Your task to perform on an android device: turn smart compose on in the gmail app Image 0: 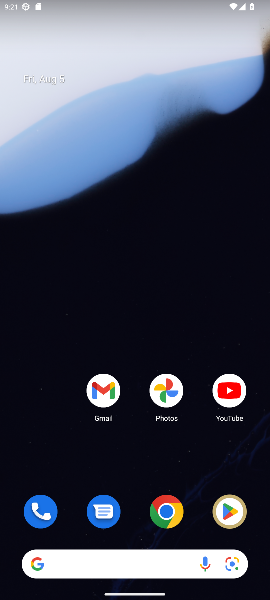
Step 0: drag from (101, 566) to (113, 290)
Your task to perform on an android device: turn smart compose on in the gmail app Image 1: 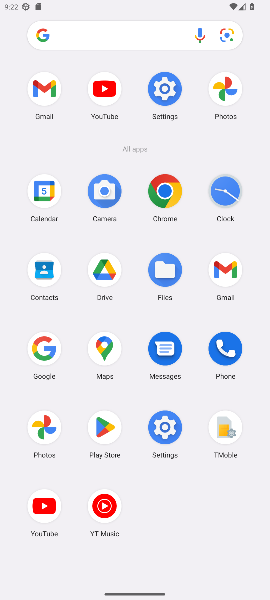
Step 1: click (223, 272)
Your task to perform on an android device: turn smart compose on in the gmail app Image 2: 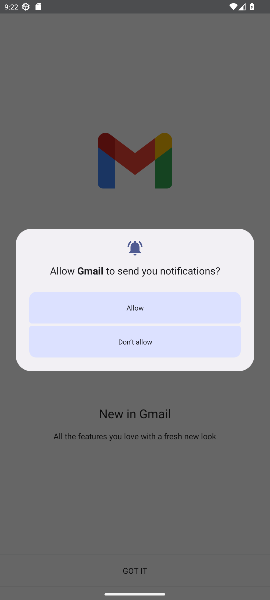
Step 2: click (134, 307)
Your task to perform on an android device: turn smart compose on in the gmail app Image 3: 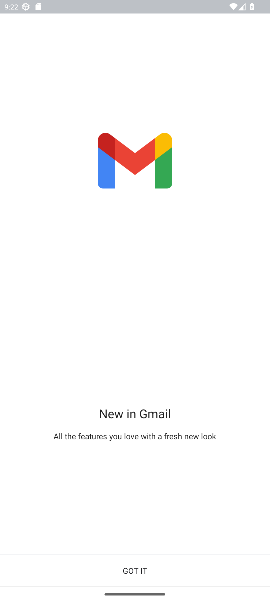
Step 3: click (141, 572)
Your task to perform on an android device: turn smart compose on in the gmail app Image 4: 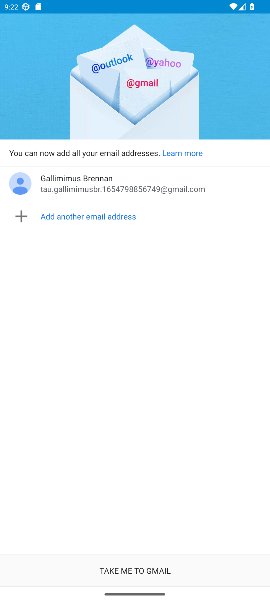
Step 4: click (148, 567)
Your task to perform on an android device: turn smart compose on in the gmail app Image 5: 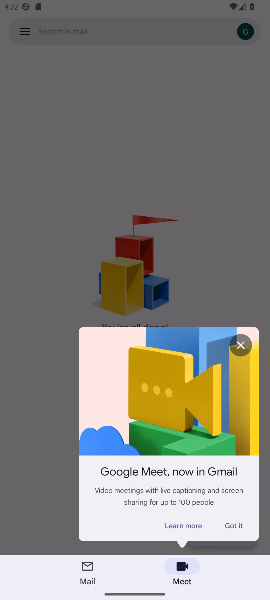
Step 5: click (227, 528)
Your task to perform on an android device: turn smart compose on in the gmail app Image 6: 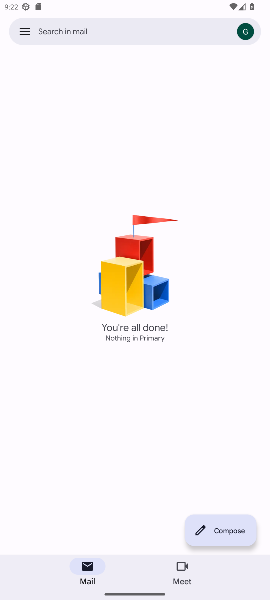
Step 6: click (23, 28)
Your task to perform on an android device: turn smart compose on in the gmail app Image 7: 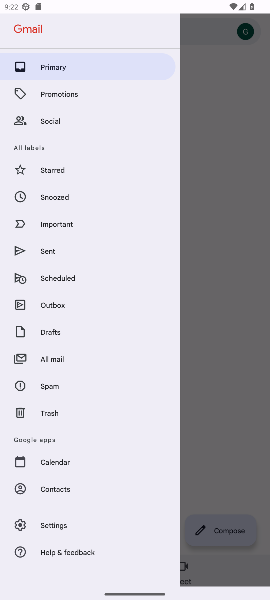
Step 7: click (56, 526)
Your task to perform on an android device: turn smart compose on in the gmail app Image 8: 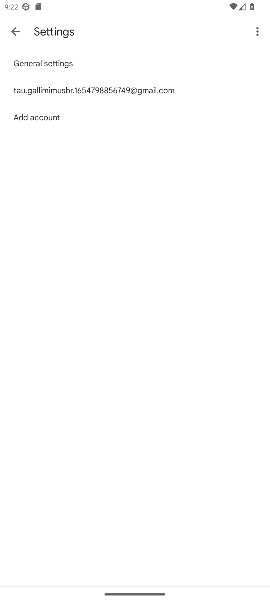
Step 8: click (93, 91)
Your task to perform on an android device: turn smart compose on in the gmail app Image 9: 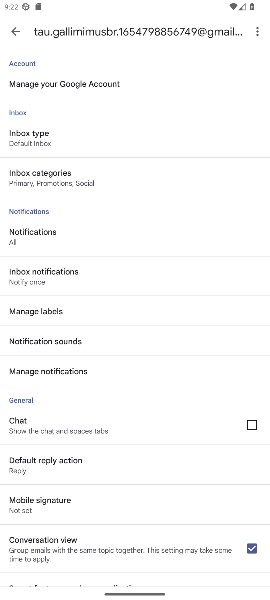
Step 9: task complete